Your task to perform on an android device: Open settings on Google Maps Image 0: 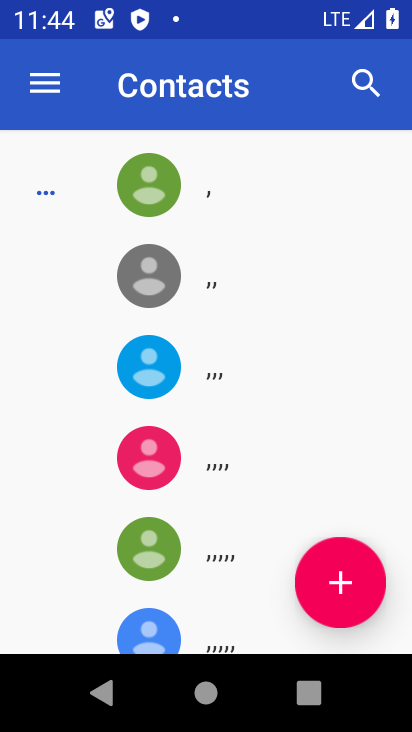
Step 0: press home button
Your task to perform on an android device: Open settings on Google Maps Image 1: 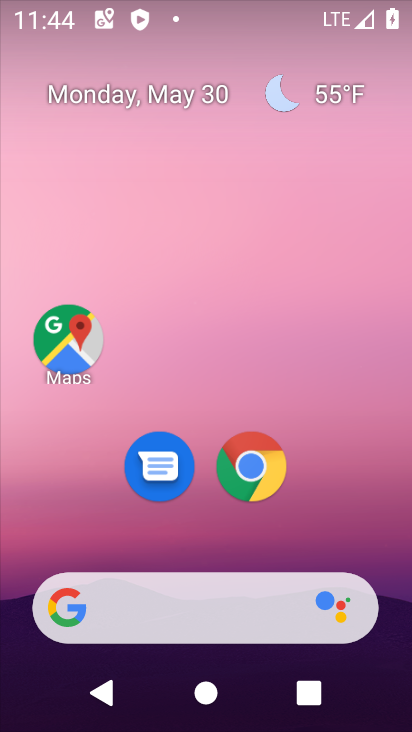
Step 1: click (72, 353)
Your task to perform on an android device: Open settings on Google Maps Image 2: 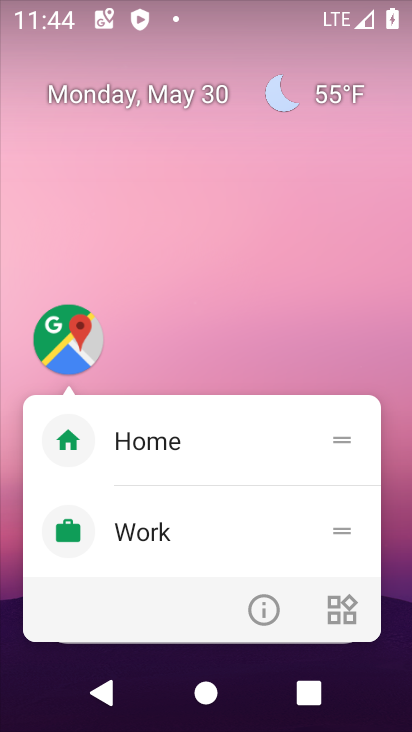
Step 2: click (89, 321)
Your task to perform on an android device: Open settings on Google Maps Image 3: 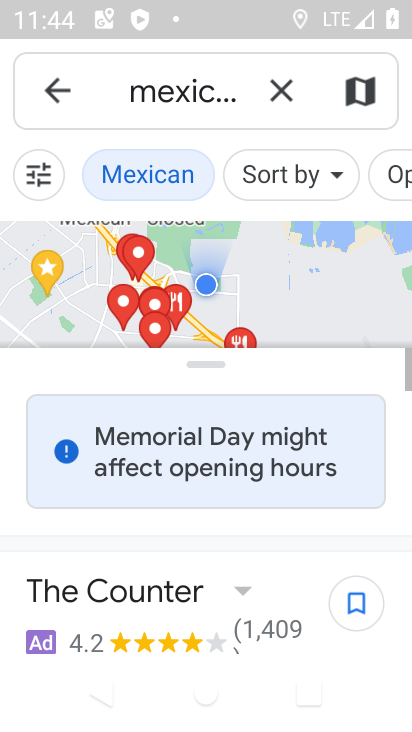
Step 3: click (73, 91)
Your task to perform on an android device: Open settings on Google Maps Image 4: 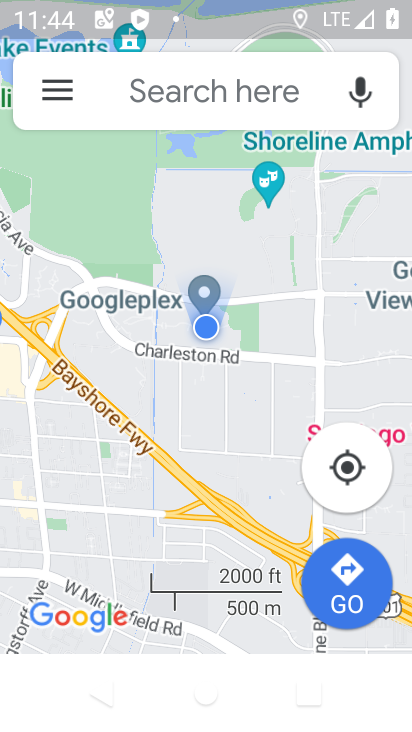
Step 4: click (73, 91)
Your task to perform on an android device: Open settings on Google Maps Image 5: 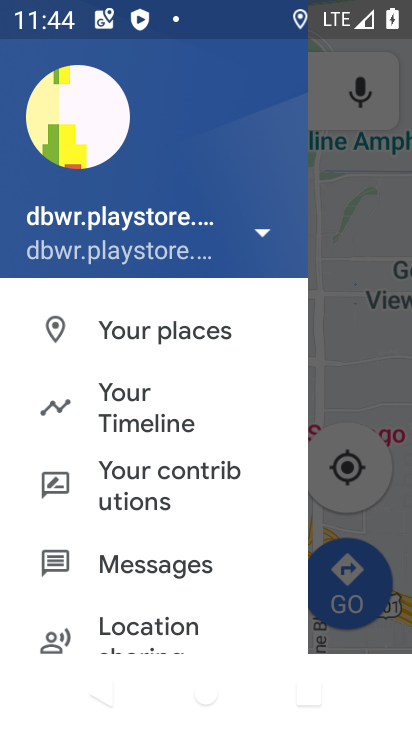
Step 5: drag from (162, 563) to (192, 62)
Your task to perform on an android device: Open settings on Google Maps Image 6: 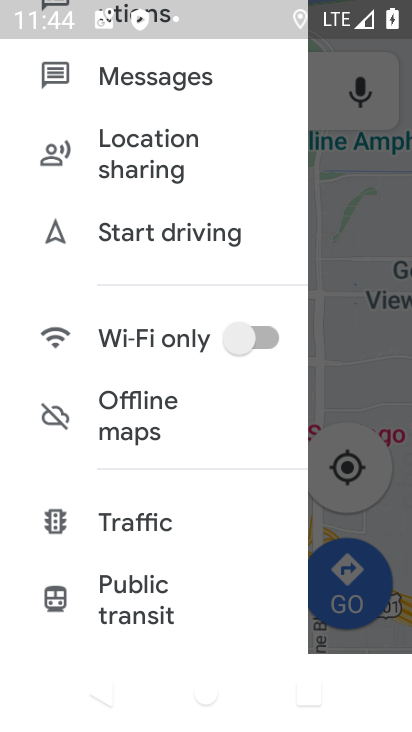
Step 6: drag from (197, 501) to (224, 122)
Your task to perform on an android device: Open settings on Google Maps Image 7: 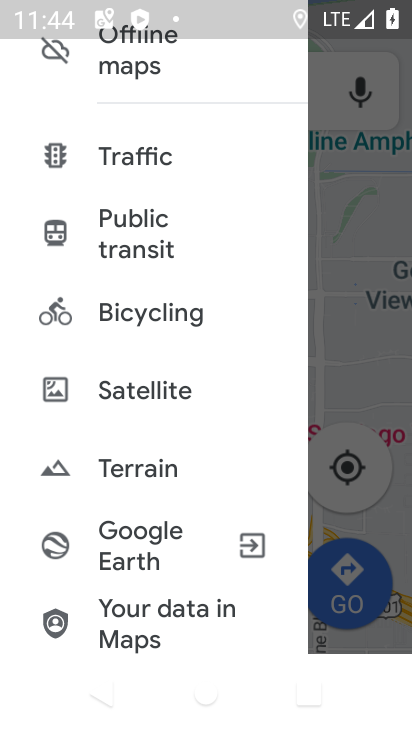
Step 7: drag from (185, 573) to (186, 302)
Your task to perform on an android device: Open settings on Google Maps Image 8: 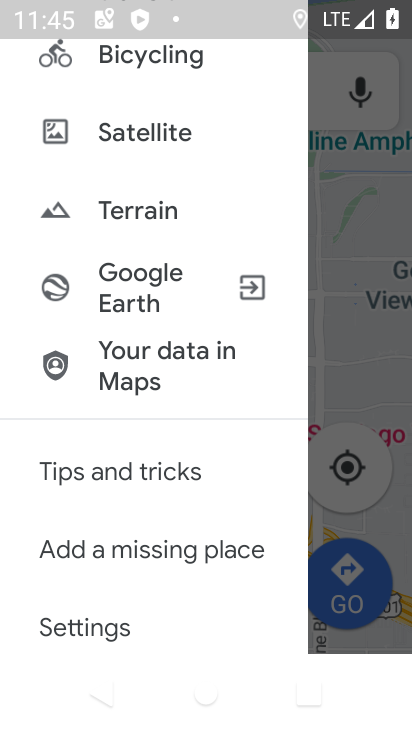
Step 8: click (106, 630)
Your task to perform on an android device: Open settings on Google Maps Image 9: 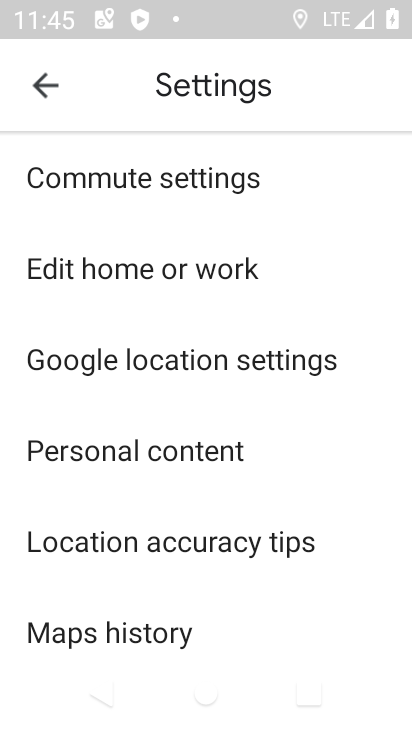
Step 9: task complete